Your task to perform on an android device: Go to Reddit Image 0: 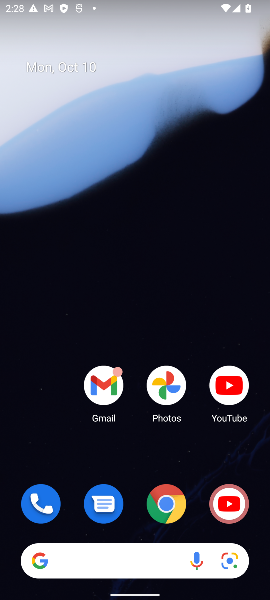
Step 0: drag from (103, 293) to (103, 104)
Your task to perform on an android device: Go to Reddit Image 1: 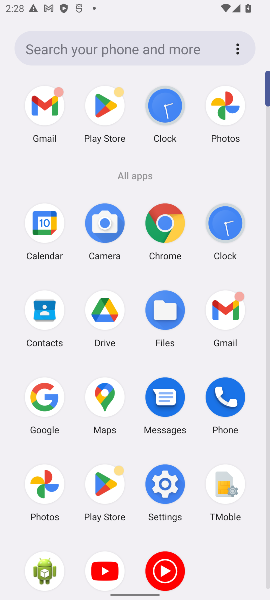
Step 1: click (166, 221)
Your task to perform on an android device: Go to Reddit Image 2: 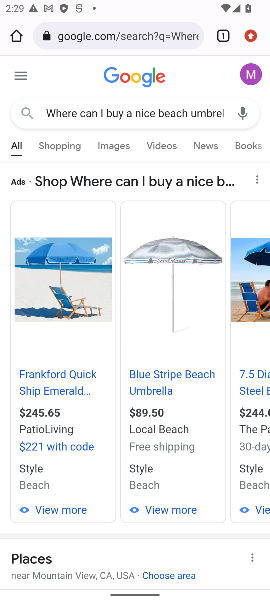
Step 2: press back button
Your task to perform on an android device: Go to Reddit Image 3: 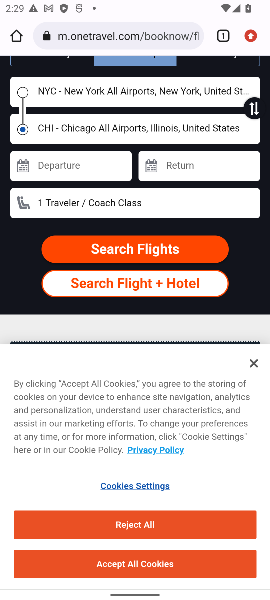
Step 3: press back button
Your task to perform on an android device: Go to Reddit Image 4: 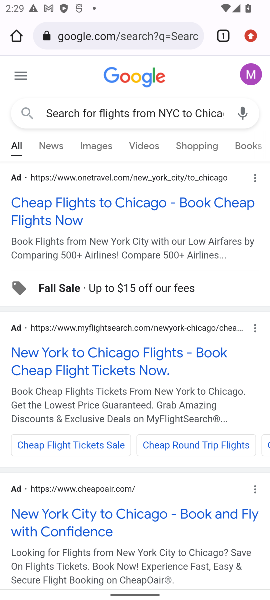
Step 4: press back button
Your task to perform on an android device: Go to Reddit Image 5: 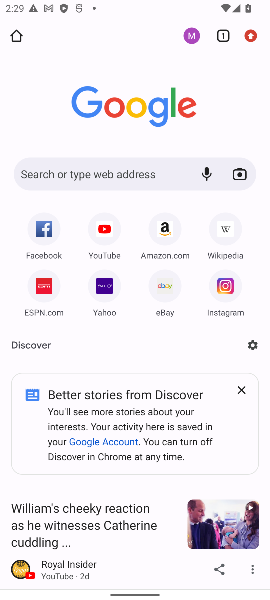
Step 5: click (90, 169)
Your task to perform on an android device: Go to Reddit Image 6: 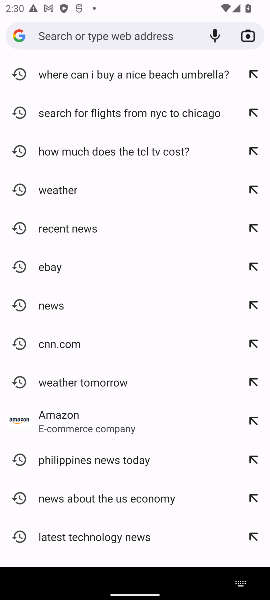
Step 6: type "Reddit"
Your task to perform on an android device: Go to Reddit Image 7: 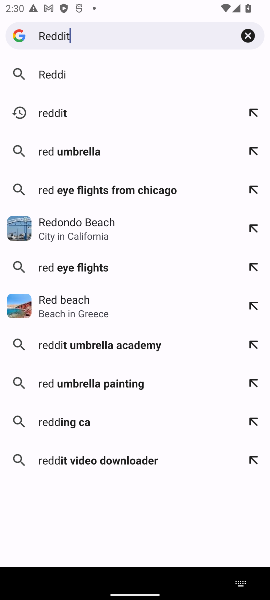
Step 7: press enter
Your task to perform on an android device: Go to Reddit Image 8: 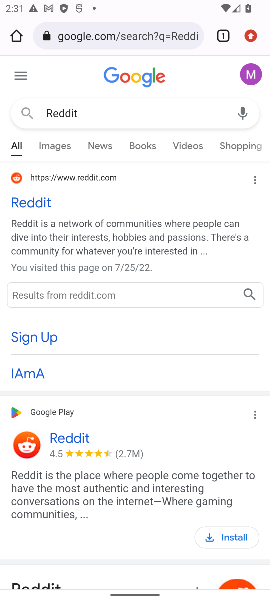
Step 8: click (28, 200)
Your task to perform on an android device: Go to Reddit Image 9: 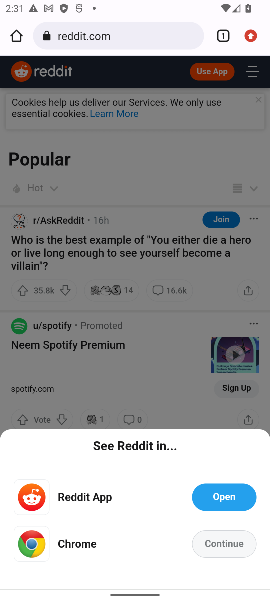
Step 9: task complete